Your task to perform on an android device: turn on bluetooth scan Image 0: 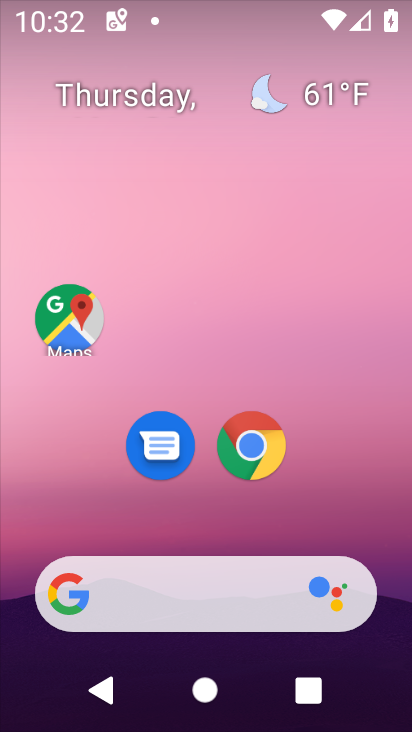
Step 0: drag from (184, 519) to (85, 3)
Your task to perform on an android device: turn on bluetooth scan Image 1: 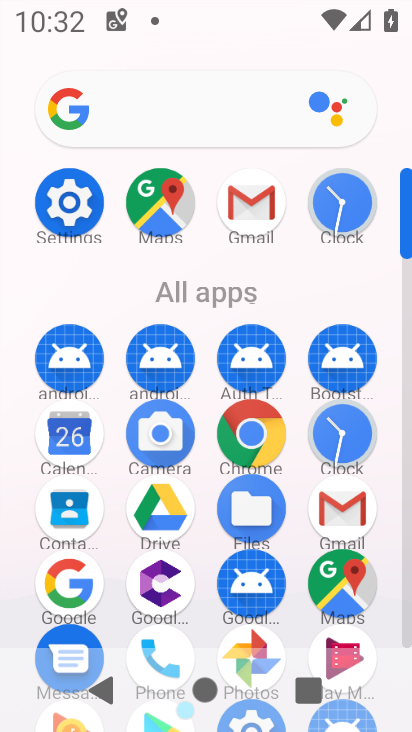
Step 1: click (68, 200)
Your task to perform on an android device: turn on bluetooth scan Image 2: 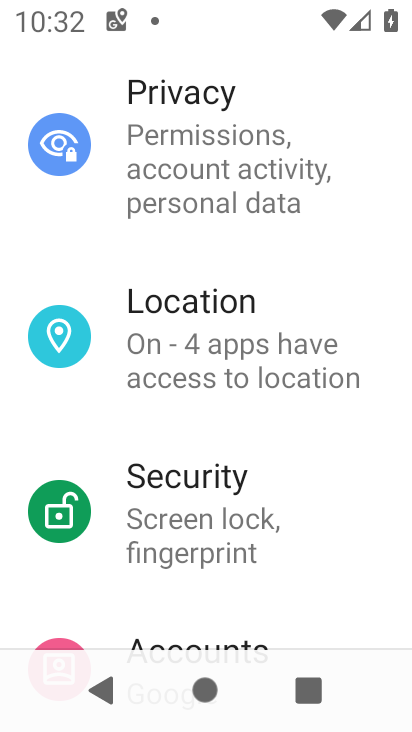
Step 2: click (208, 348)
Your task to perform on an android device: turn on bluetooth scan Image 3: 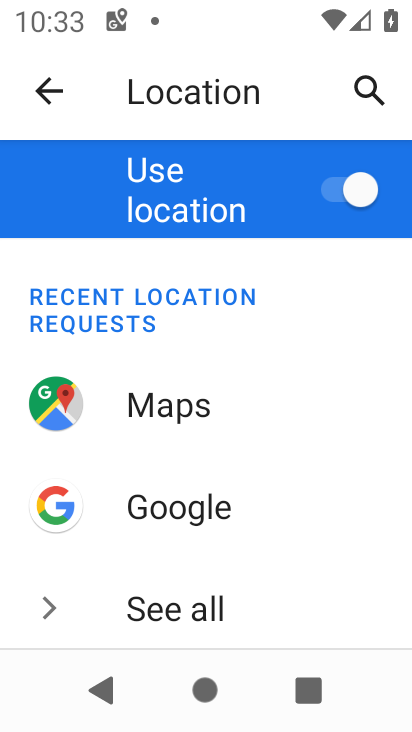
Step 3: drag from (278, 561) to (285, 47)
Your task to perform on an android device: turn on bluetooth scan Image 4: 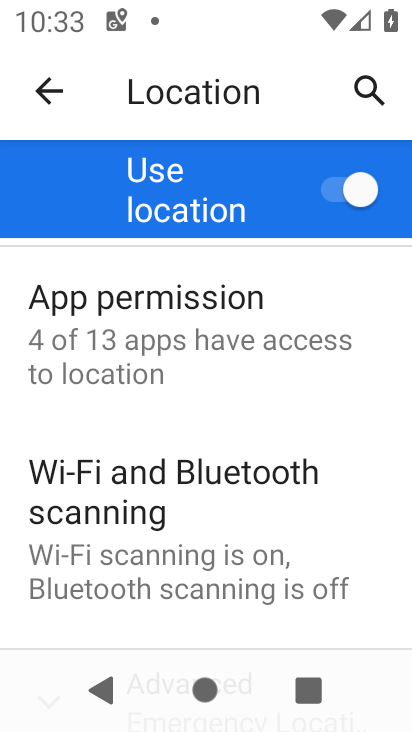
Step 4: click (178, 514)
Your task to perform on an android device: turn on bluetooth scan Image 5: 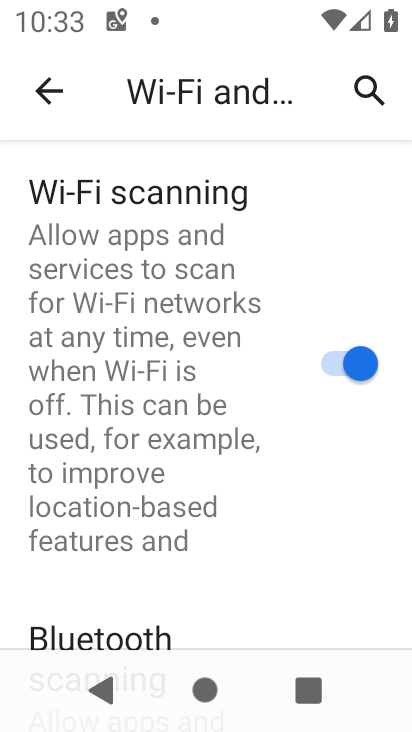
Step 5: drag from (200, 542) to (162, 118)
Your task to perform on an android device: turn on bluetooth scan Image 6: 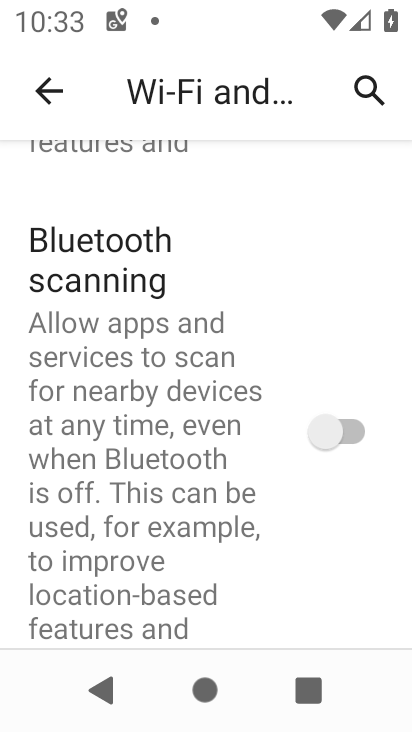
Step 6: click (350, 429)
Your task to perform on an android device: turn on bluetooth scan Image 7: 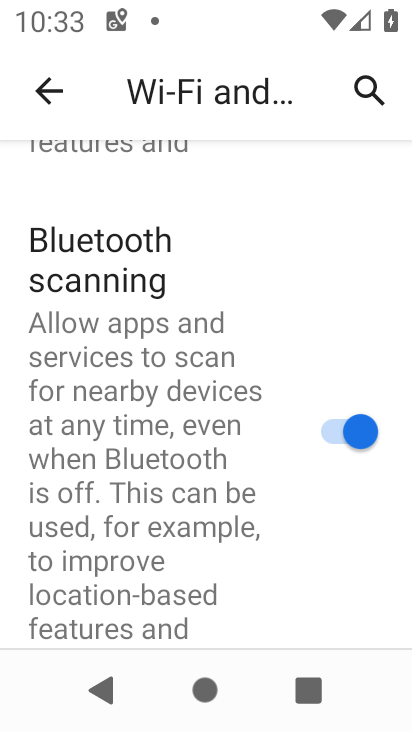
Step 7: task complete